Your task to perform on an android device: Open Chrome and go to the settings page Image 0: 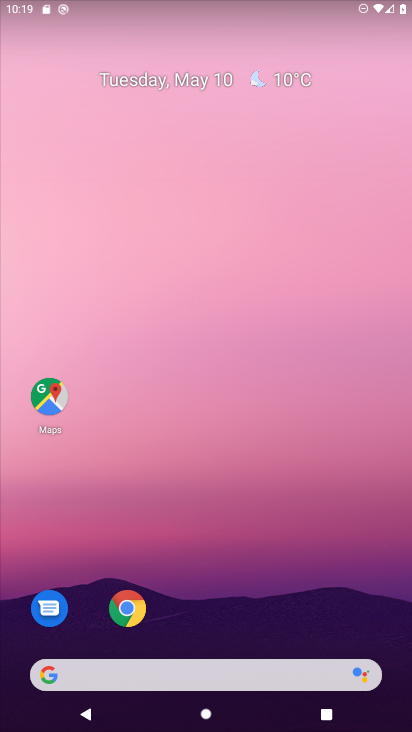
Step 0: drag from (379, 617) to (299, 42)
Your task to perform on an android device: Open Chrome and go to the settings page Image 1: 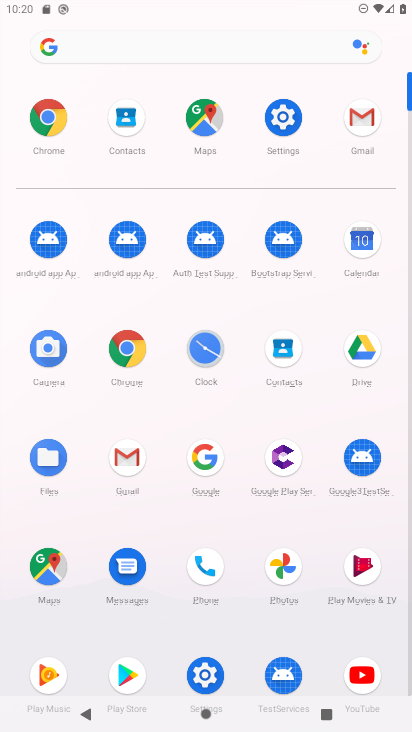
Step 1: click (134, 345)
Your task to perform on an android device: Open Chrome and go to the settings page Image 2: 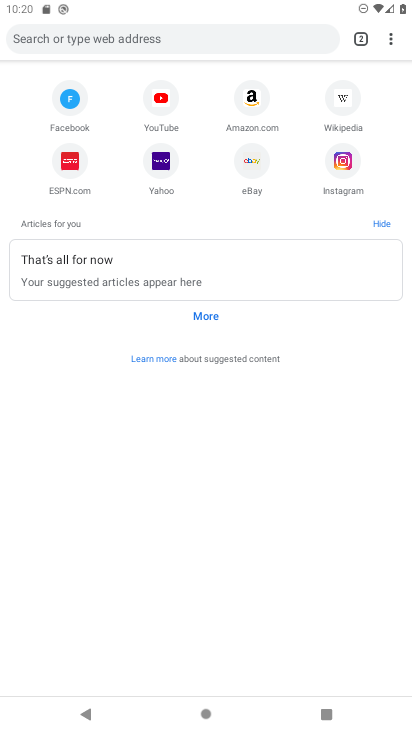
Step 2: click (388, 27)
Your task to perform on an android device: Open Chrome and go to the settings page Image 3: 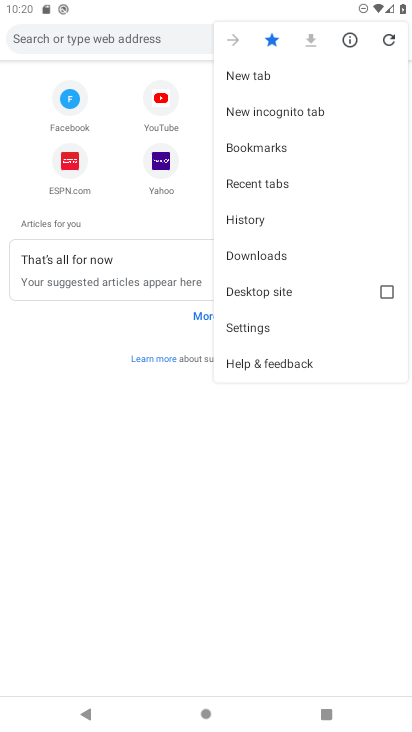
Step 3: click (264, 331)
Your task to perform on an android device: Open Chrome and go to the settings page Image 4: 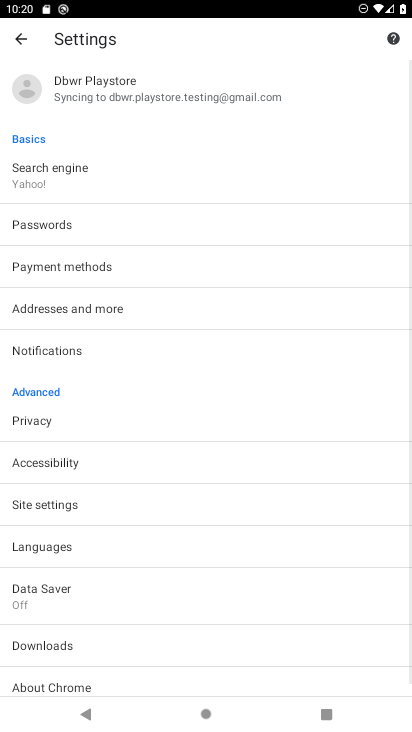
Step 4: task complete